Your task to perform on an android device: turn on the 12-hour format for clock Image 0: 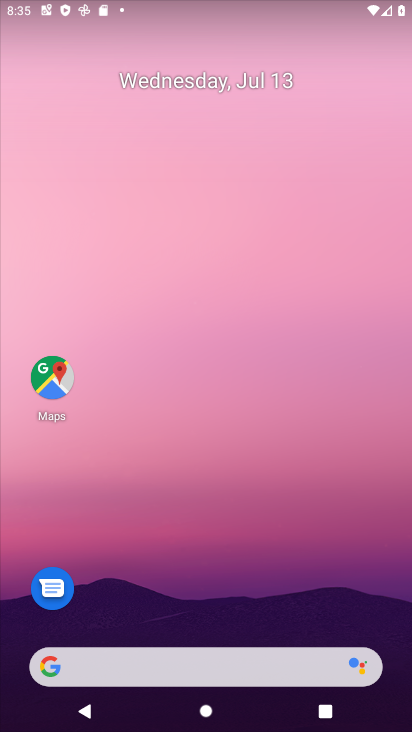
Step 0: drag from (156, 715) to (237, 101)
Your task to perform on an android device: turn on the 12-hour format for clock Image 1: 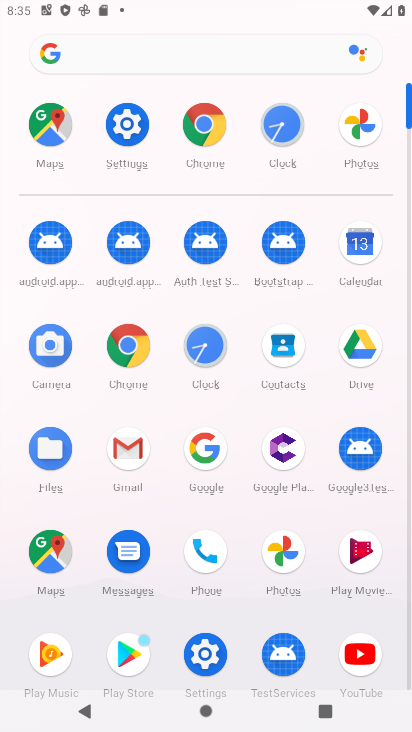
Step 1: click (280, 113)
Your task to perform on an android device: turn on the 12-hour format for clock Image 2: 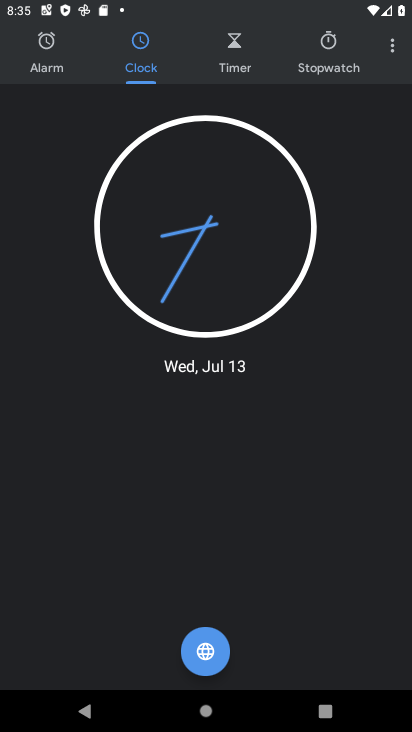
Step 2: click (388, 40)
Your task to perform on an android device: turn on the 12-hour format for clock Image 3: 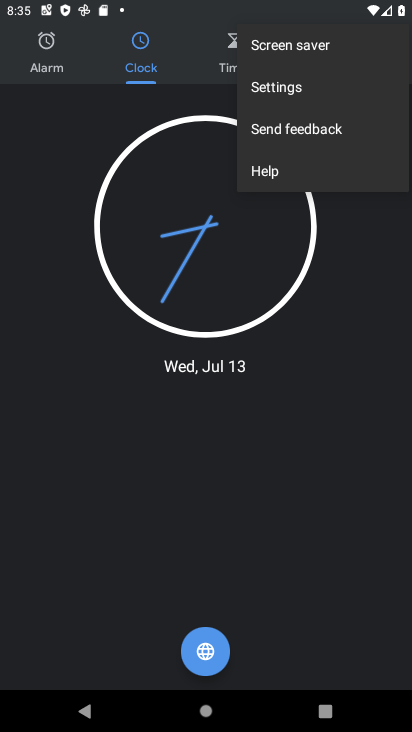
Step 3: click (337, 90)
Your task to perform on an android device: turn on the 12-hour format for clock Image 4: 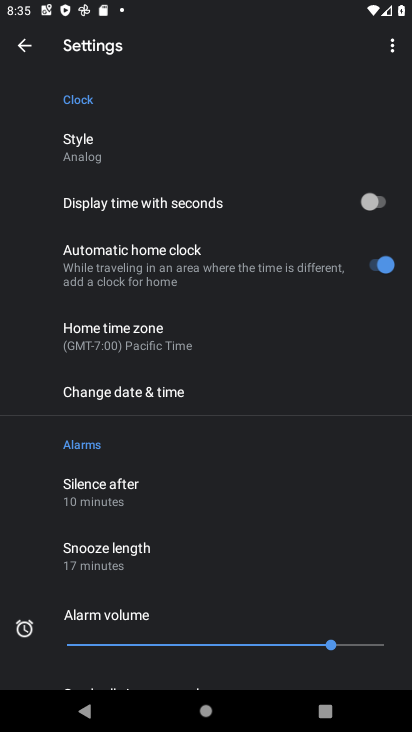
Step 4: click (174, 394)
Your task to perform on an android device: turn on the 12-hour format for clock Image 5: 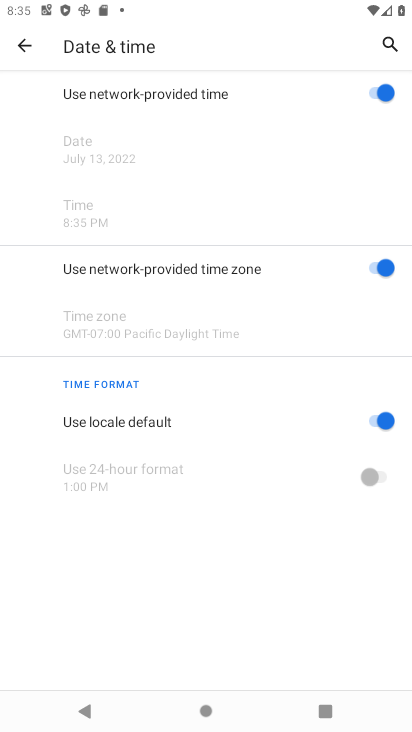
Step 5: task complete